Your task to perform on an android device: Open CNN.com Image 0: 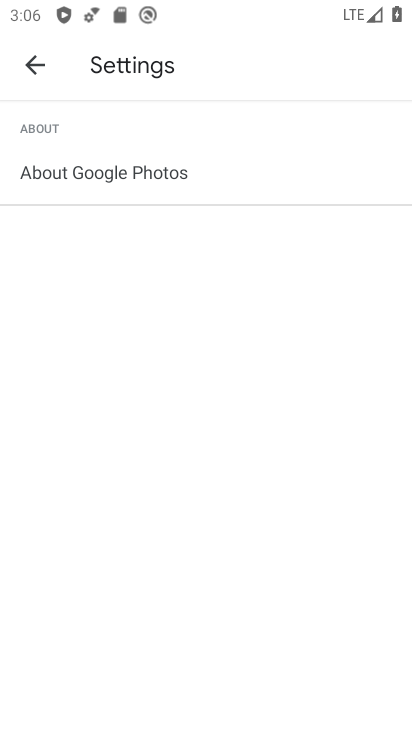
Step 0: press home button
Your task to perform on an android device: Open CNN.com Image 1: 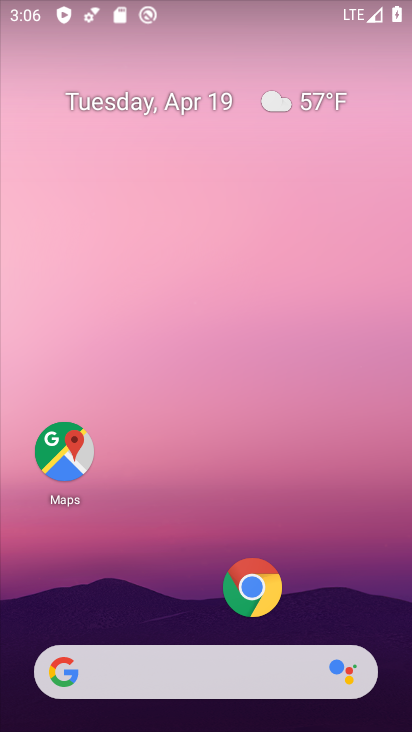
Step 1: click (246, 588)
Your task to perform on an android device: Open CNN.com Image 2: 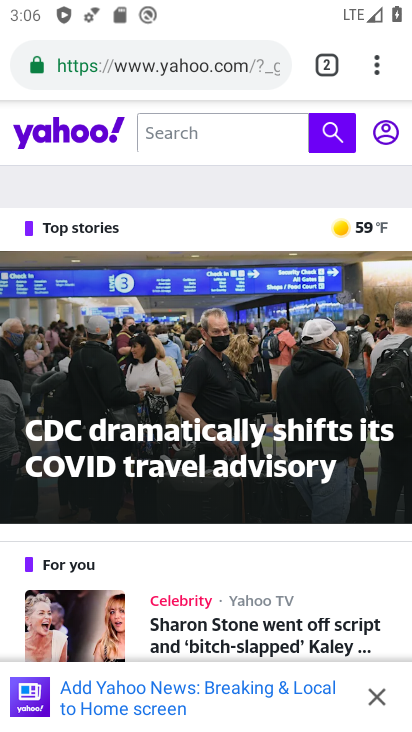
Step 2: click (172, 56)
Your task to perform on an android device: Open CNN.com Image 3: 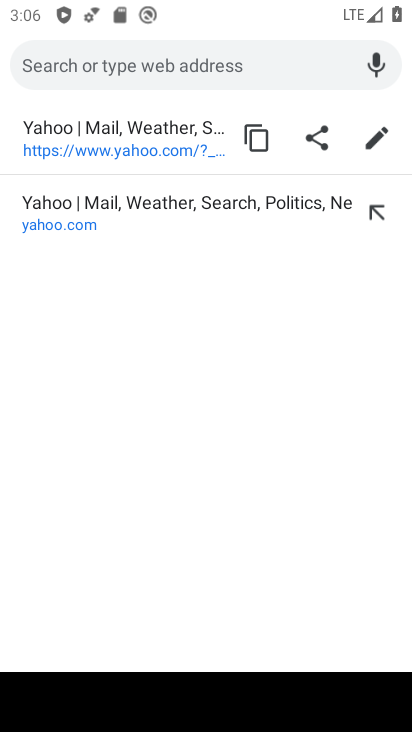
Step 3: type "CNN.com"
Your task to perform on an android device: Open CNN.com Image 4: 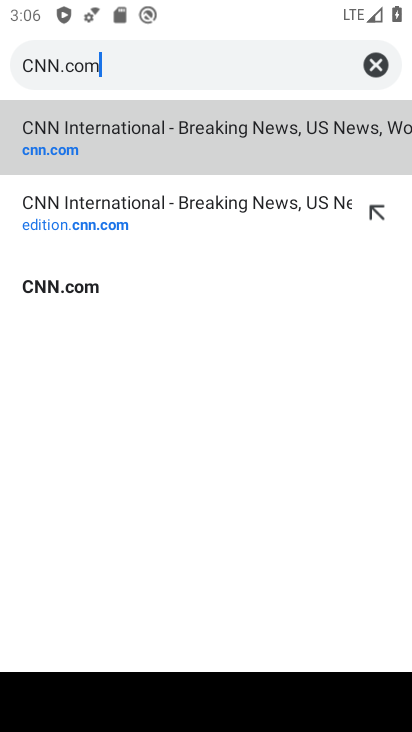
Step 4: click (117, 281)
Your task to perform on an android device: Open CNN.com Image 5: 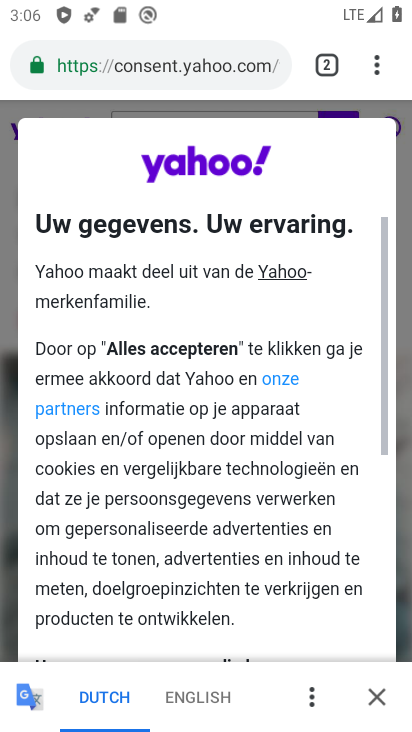
Step 5: task complete